Your task to perform on an android device: Open Google Maps and go to "Timeline" Image 0: 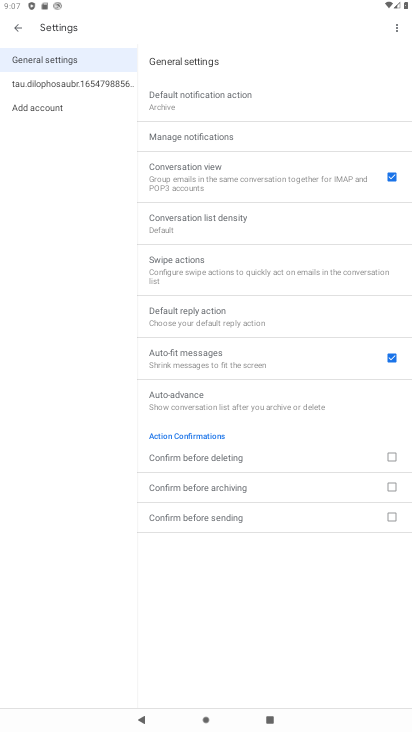
Step 0: press home button
Your task to perform on an android device: Open Google Maps and go to "Timeline" Image 1: 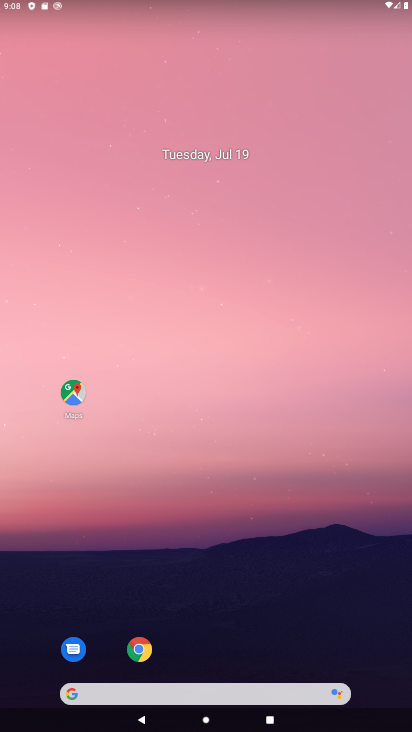
Step 1: click (356, 576)
Your task to perform on an android device: Open Google Maps and go to "Timeline" Image 2: 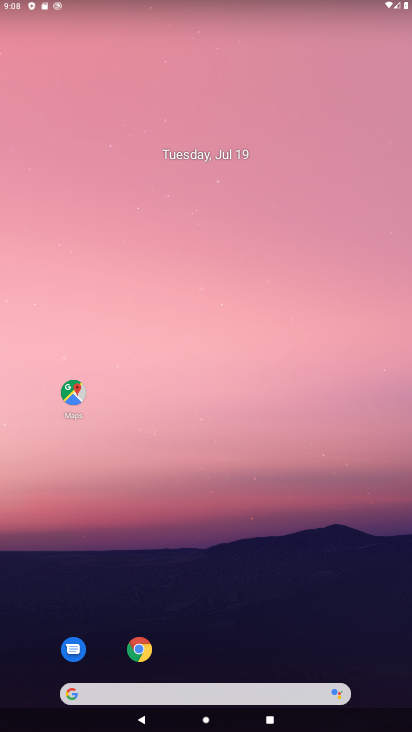
Step 2: drag from (270, 689) to (334, 215)
Your task to perform on an android device: Open Google Maps and go to "Timeline" Image 3: 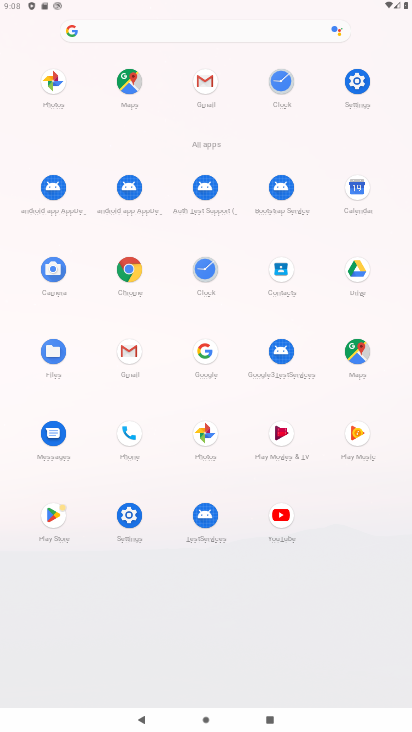
Step 3: click (342, 355)
Your task to perform on an android device: Open Google Maps and go to "Timeline" Image 4: 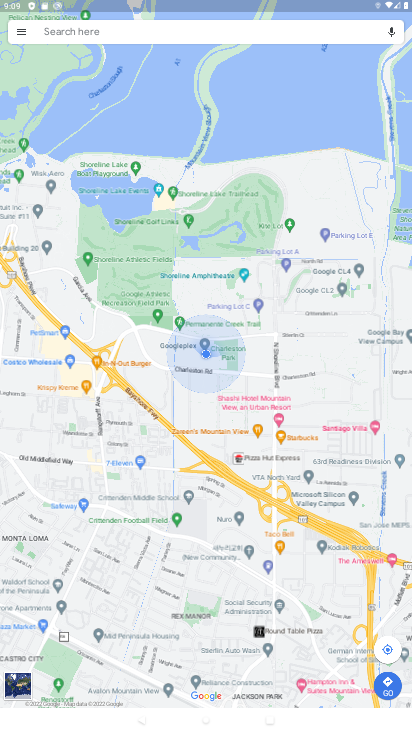
Step 4: click (23, 33)
Your task to perform on an android device: Open Google Maps and go to "Timeline" Image 5: 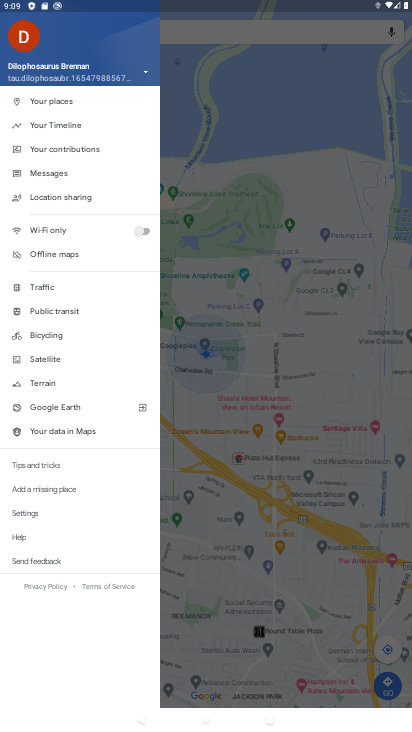
Step 5: click (58, 122)
Your task to perform on an android device: Open Google Maps and go to "Timeline" Image 6: 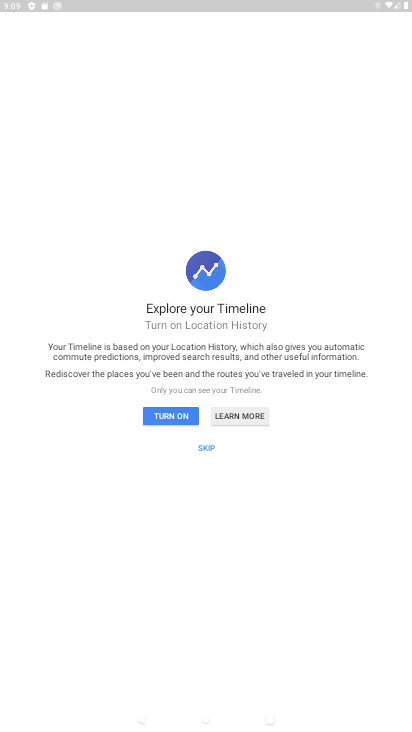
Step 6: click (206, 442)
Your task to perform on an android device: Open Google Maps and go to "Timeline" Image 7: 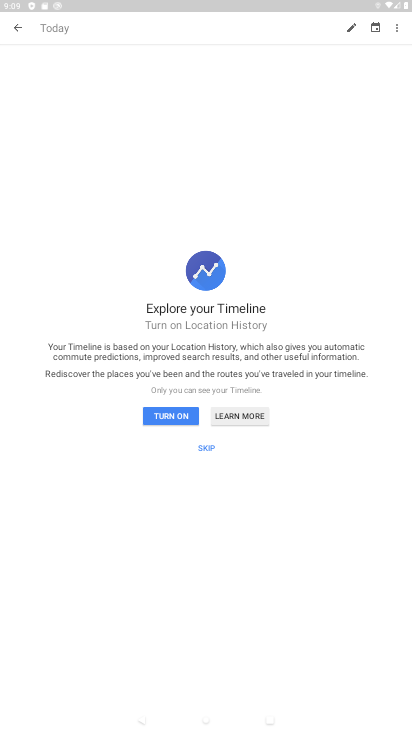
Step 7: task complete